Your task to perform on an android device: turn off smart reply in the gmail app Image 0: 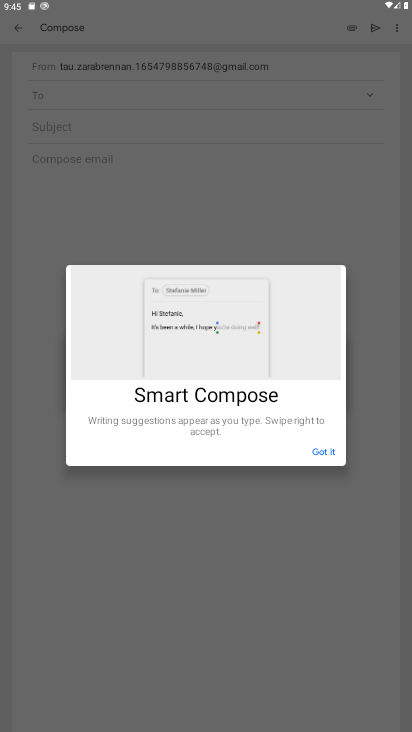
Step 0: press home button
Your task to perform on an android device: turn off smart reply in the gmail app Image 1: 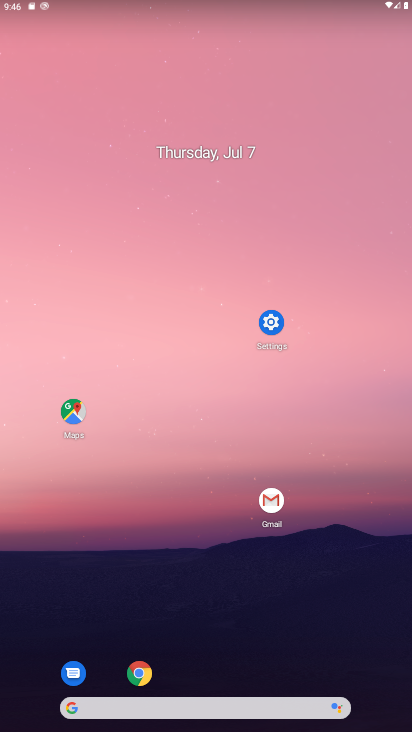
Step 1: click (276, 504)
Your task to perform on an android device: turn off smart reply in the gmail app Image 2: 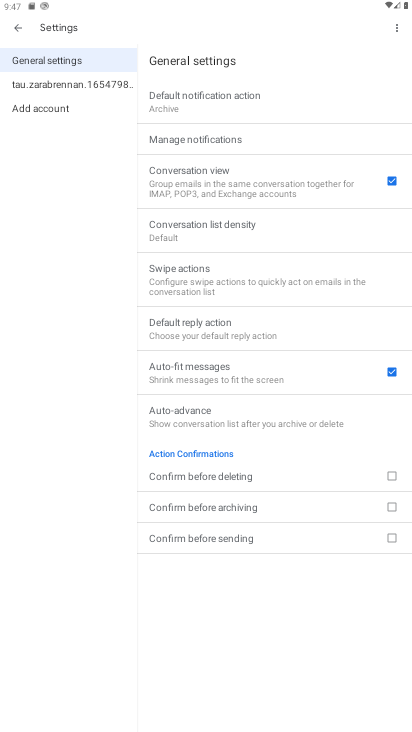
Step 2: click (55, 80)
Your task to perform on an android device: turn off smart reply in the gmail app Image 3: 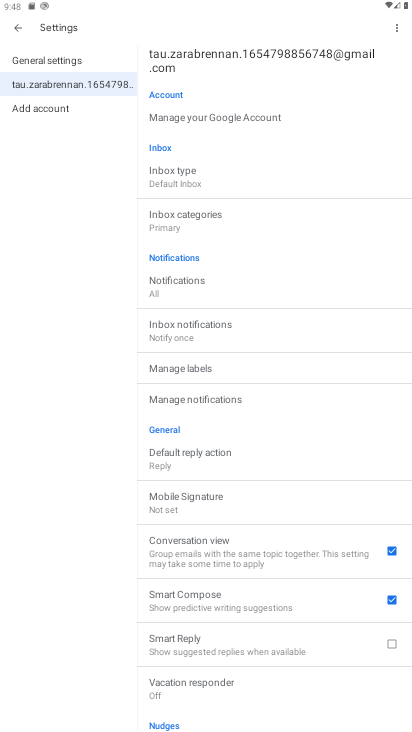
Step 3: click (185, 643)
Your task to perform on an android device: turn off smart reply in the gmail app Image 4: 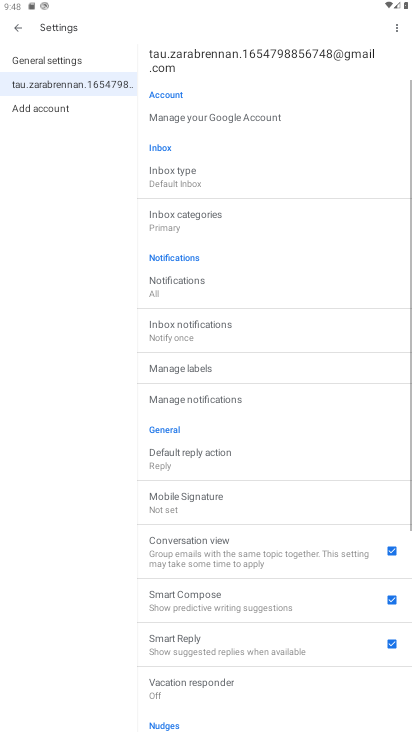
Step 4: click (185, 643)
Your task to perform on an android device: turn off smart reply in the gmail app Image 5: 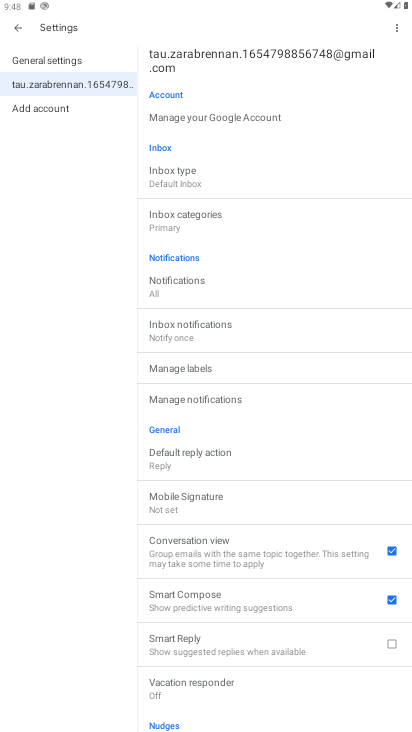
Step 5: task complete